Your task to perform on an android device: Open network settings Image 0: 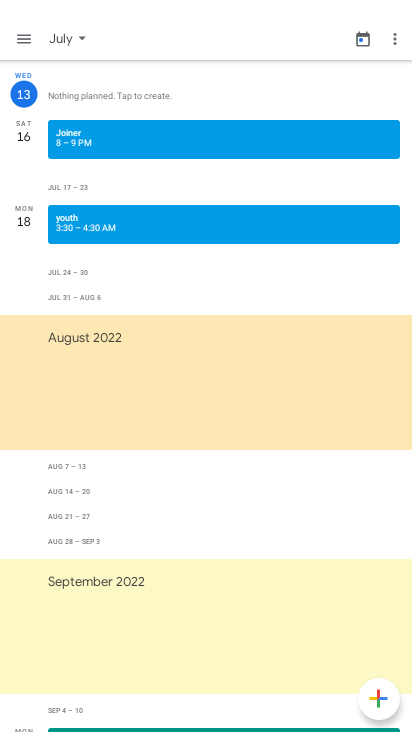
Step 0: press home button
Your task to perform on an android device: Open network settings Image 1: 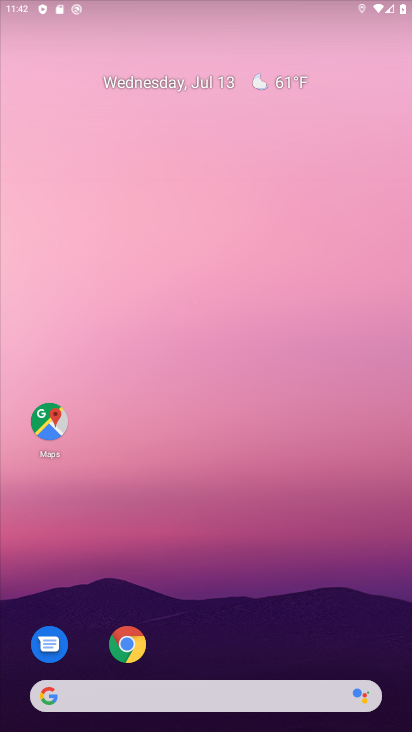
Step 1: drag from (262, 630) to (279, 131)
Your task to perform on an android device: Open network settings Image 2: 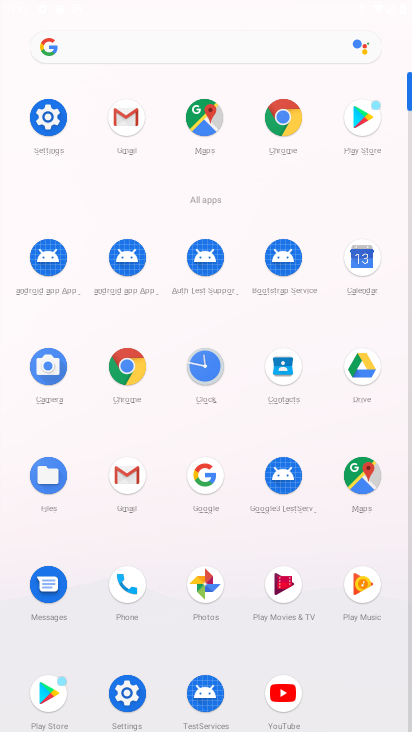
Step 2: click (40, 122)
Your task to perform on an android device: Open network settings Image 3: 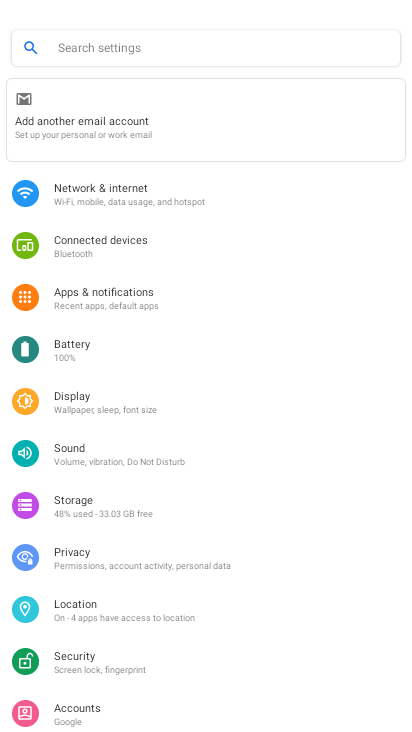
Step 3: click (118, 202)
Your task to perform on an android device: Open network settings Image 4: 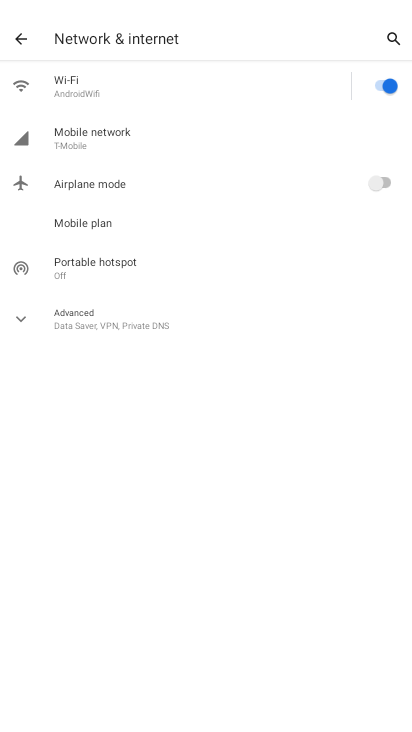
Step 4: click (124, 146)
Your task to perform on an android device: Open network settings Image 5: 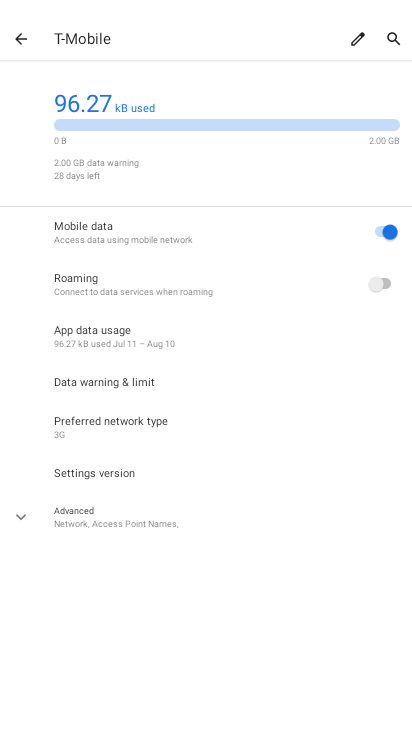
Step 5: task complete